Your task to perform on an android device: turn on the 24-hour format for clock Image 0: 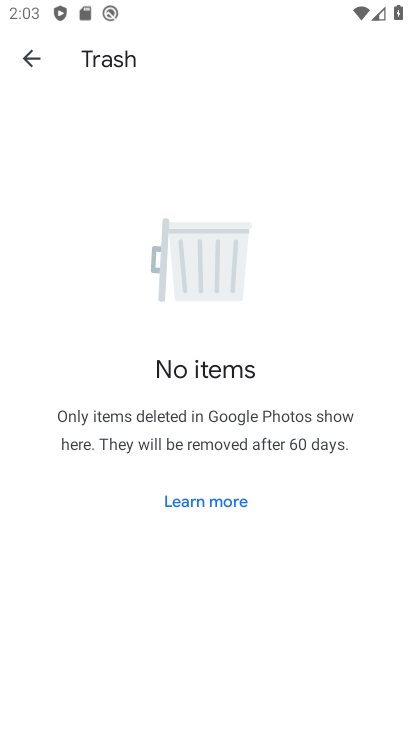
Step 0: press home button
Your task to perform on an android device: turn on the 24-hour format for clock Image 1: 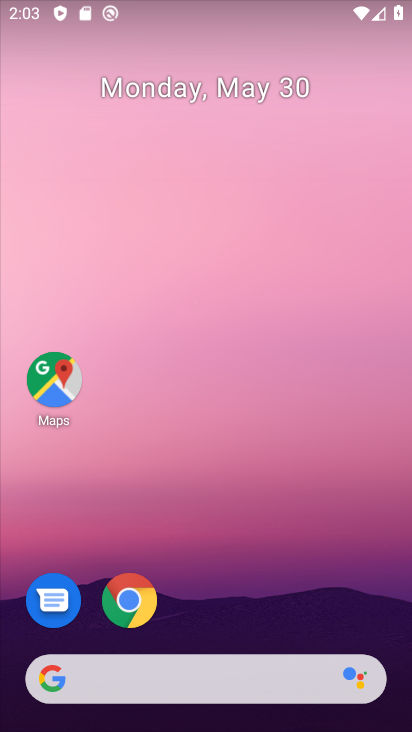
Step 1: drag from (251, 579) to (278, 82)
Your task to perform on an android device: turn on the 24-hour format for clock Image 2: 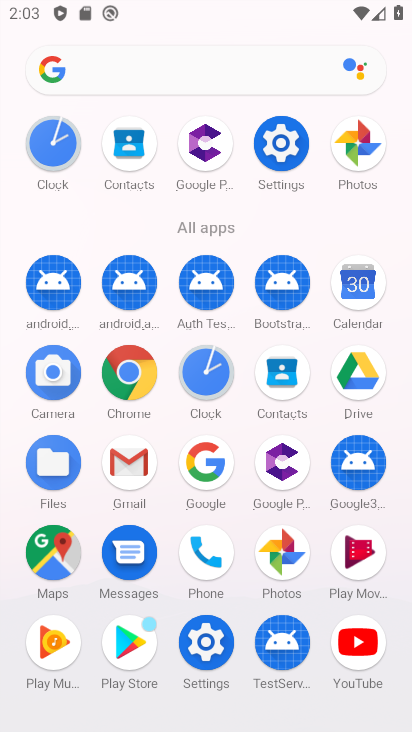
Step 2: click (210, 359)
Your task to perform on an android device: turn on the 24-hour format for clock Image 3: 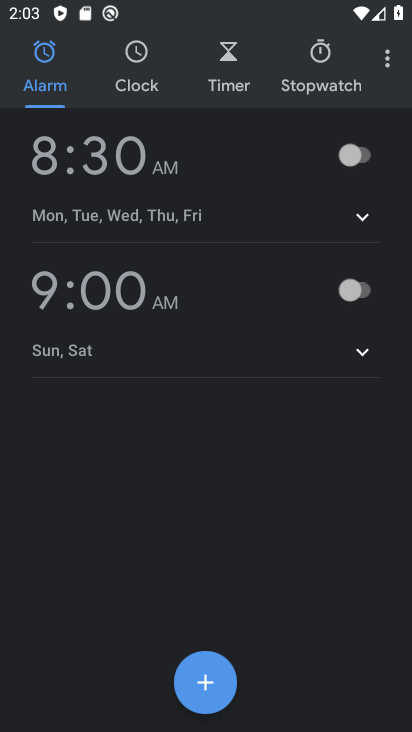
Step 3: click (391, 63)
Your task to perform on an android device: turn on the 24-hour format for clock Image 4: 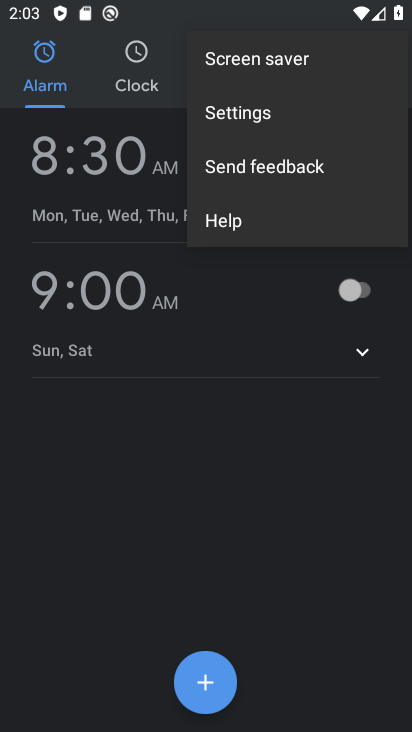
Step 4: click (254, 110)
Your task to perform on an android device: turn on the 24-hour format for clock Image 5: 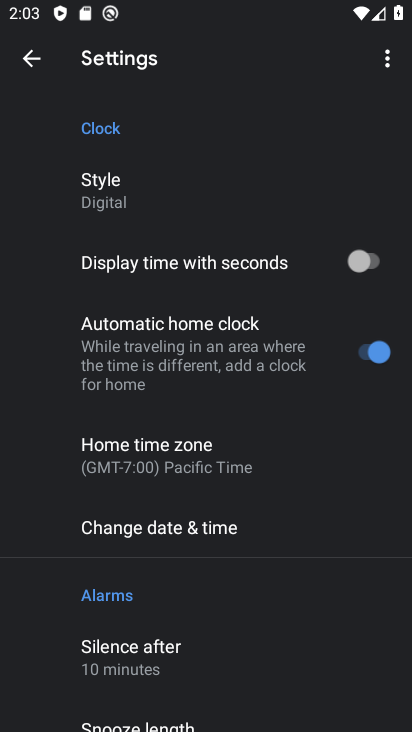
Step 5: click (167, 532)
Your task to perform on an android device: turn on the 24-hour format for clock Image 6: 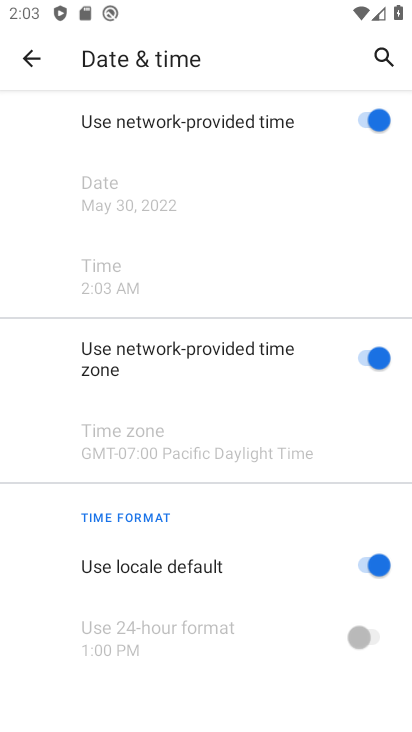
Step 6: click (377, 564)
Your task to perform on an android device: turn on the 24-hour format for clock Image 7: 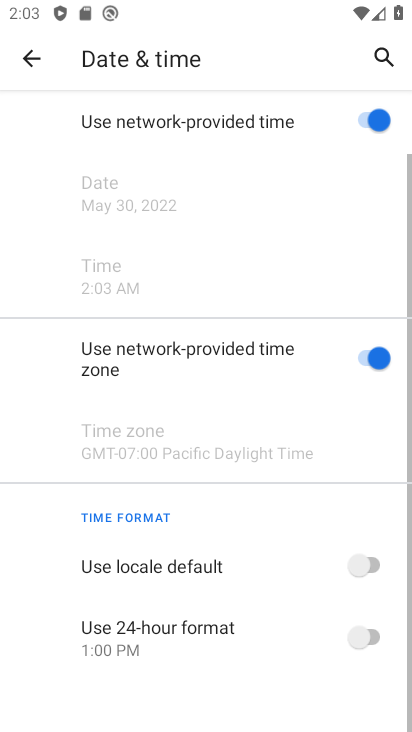
Step 7: click (374, 636)
Your task to perform on an android device: turn on the 24-hour format for clock Image 8: 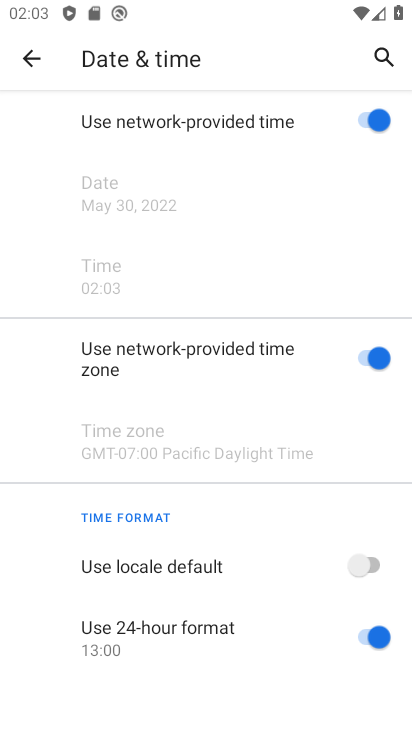
Step 8: task complete